Your task to perform on an android device: Open calendar and show me the second week of next month Image 0: 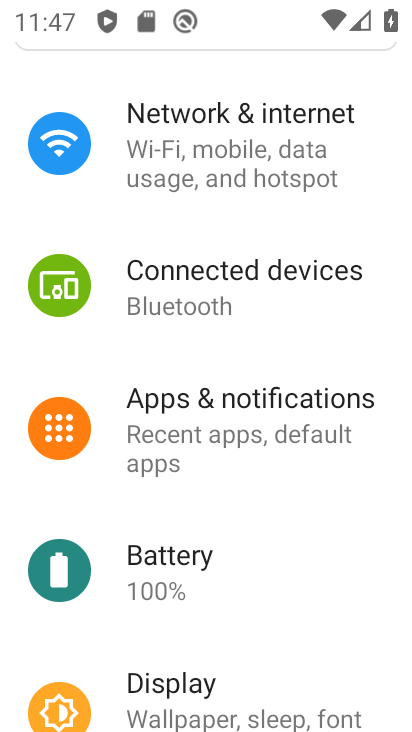
Step 0: press home button
Your task to perform on an android device: Open calendar and show me the second week of next month Image 1: 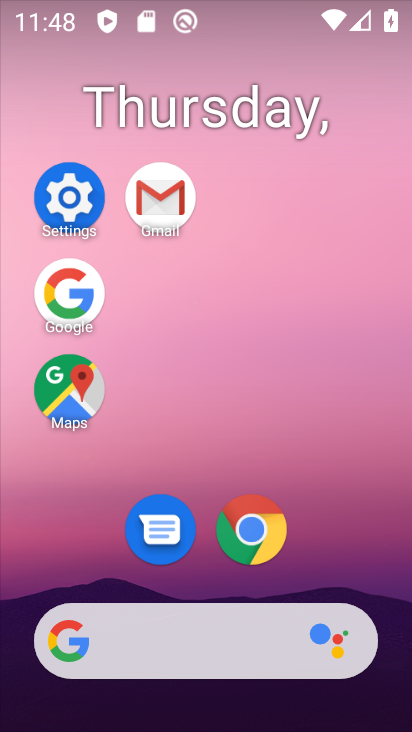
Step 1: drag from (323, 528) to (335, 80)
Your task to perform on an android device: Open calendar and show me the second week of next month Image 2: 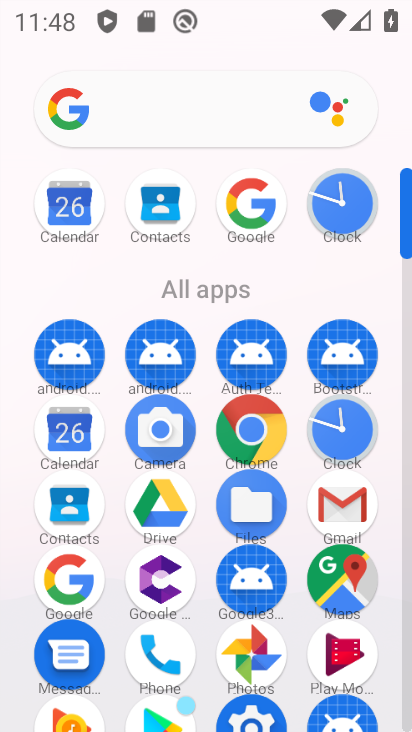
Step 2: drag from (81, 213) to (166, 268)
Your task to perform on an android device: Open calendar and show me the second week of next month Image 3: 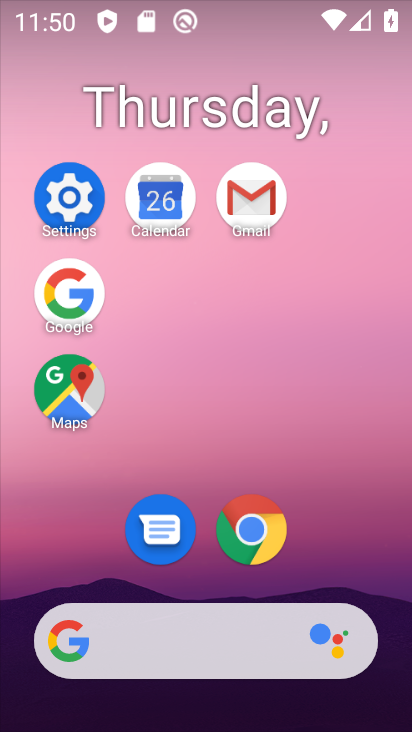
Step 3: click (177, 174)
Your task to perform on an android device: Open calendar and show me the second week of next month Image 4: 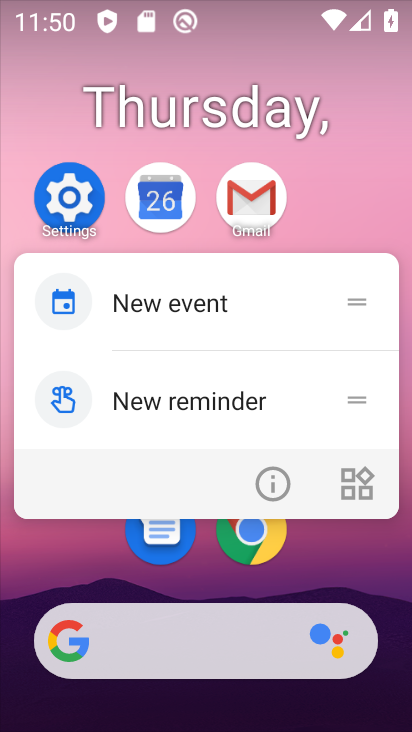
Step 4: click (173, 197)
Your task to perform on an android device: Open calendar and show me the second week of next month Image 5: 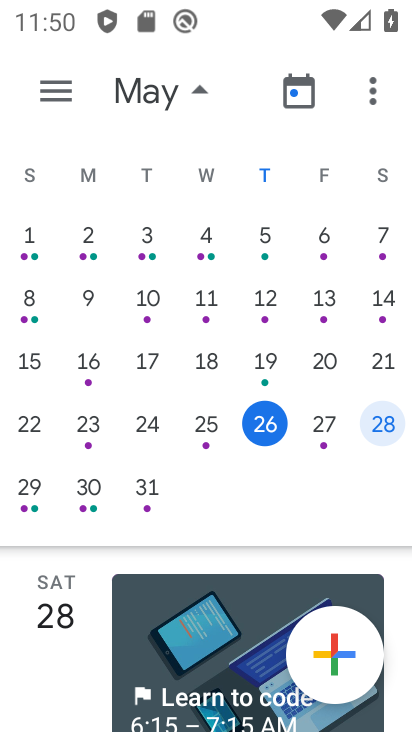
Step 5: click (173, 95)
Your task to perform on an android device: Open calendar and show me the second week of next month Image 6: 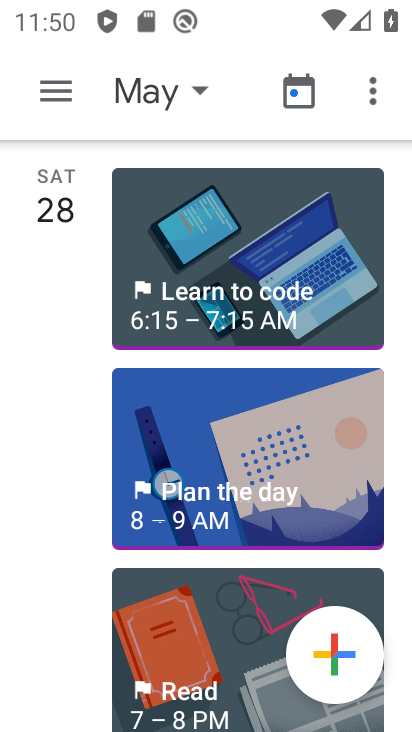
Step 6: click (184, 96)
Your task to perform on an android device: Open calendar and show me the second week of next month Image 7: 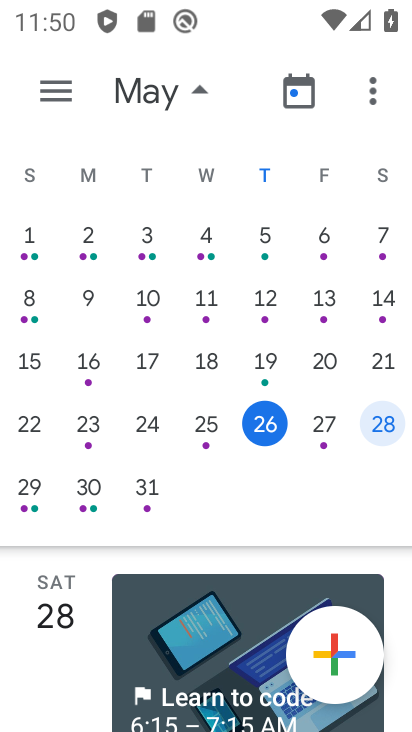
Step 7: drag from (394, 290) to (0, 108)
Your task to perform on an android device: Open calendar and show me the second week of next month Image 8: 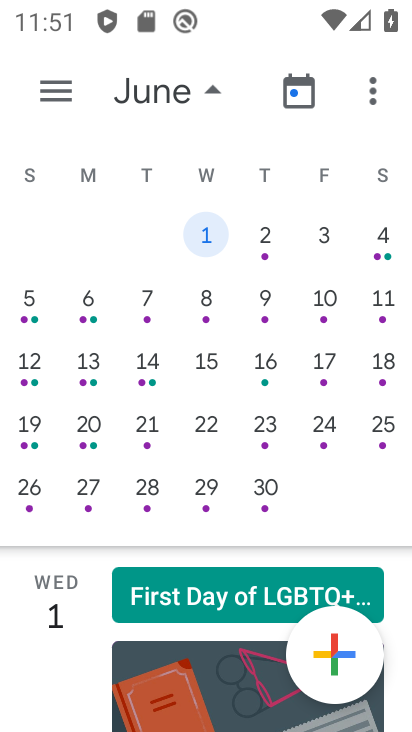
Step 8: click (91, 89)
Your task to perform on an android device: Open calendar and show me the second week of next month Image 9: 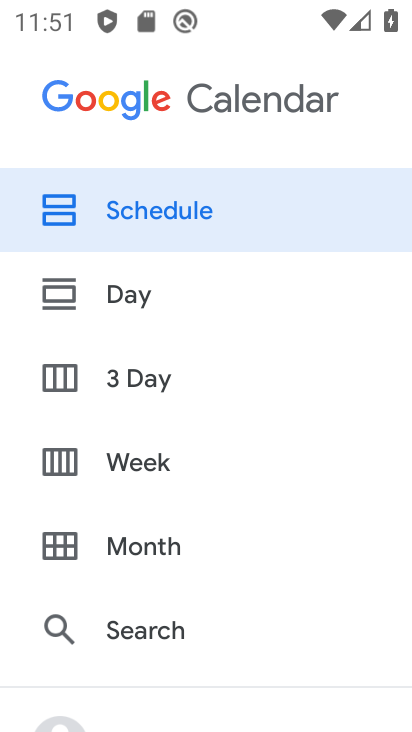
Step 9: click (215, 479)
Your task to perform on an android device: Open calendar and show me the second week of next month Image 10: 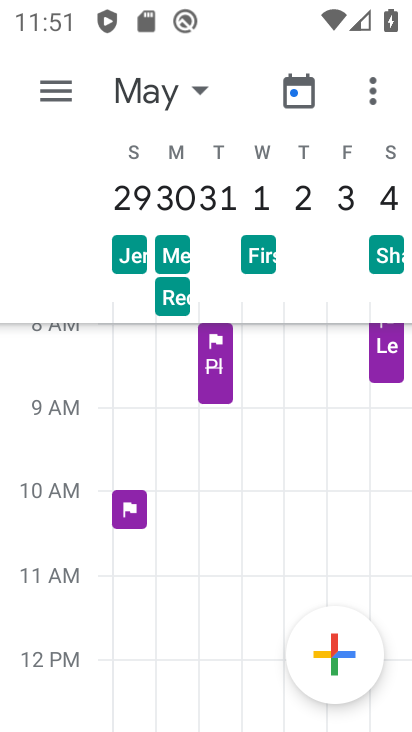
Step 10: task complete